Your task to perform on an android device: Go to Google maps Image 0: 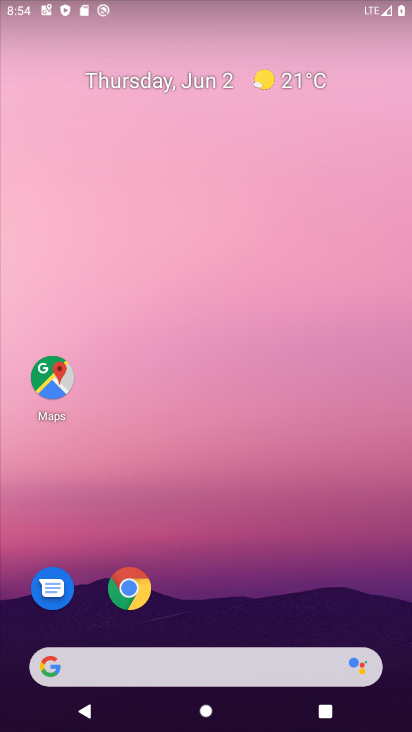
Step 0: drag from (231, 603) to (257, 0)
Your task to perform on an android device: Go to Google maps Image 1: 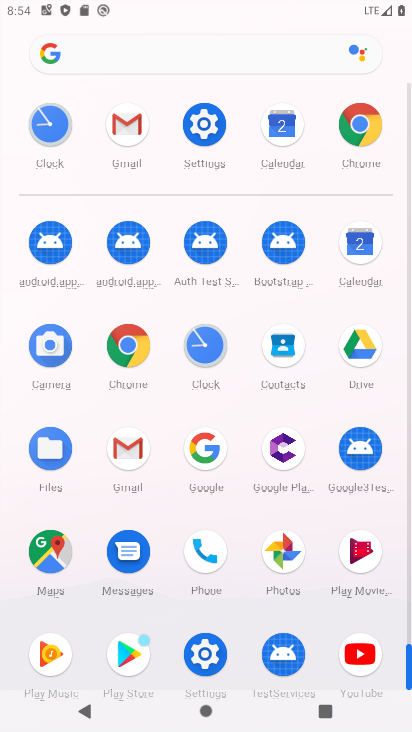
Step 1: click (52, 550)
Your task to perform on an android device: Go to Google maps Image 2: 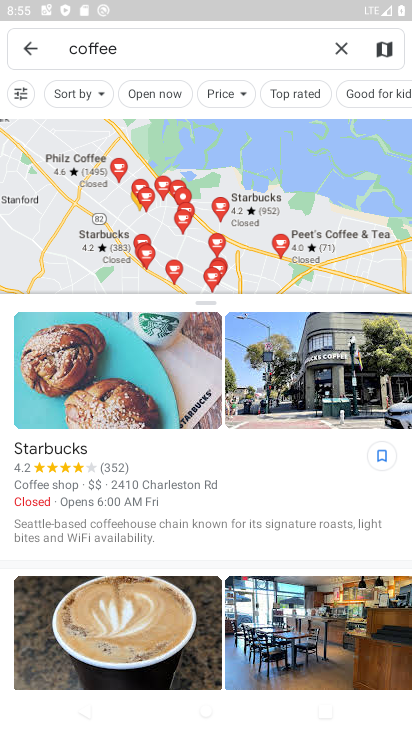
Step 2: task complete